Your task to perform on an android device: Open Google Maps Image 0: 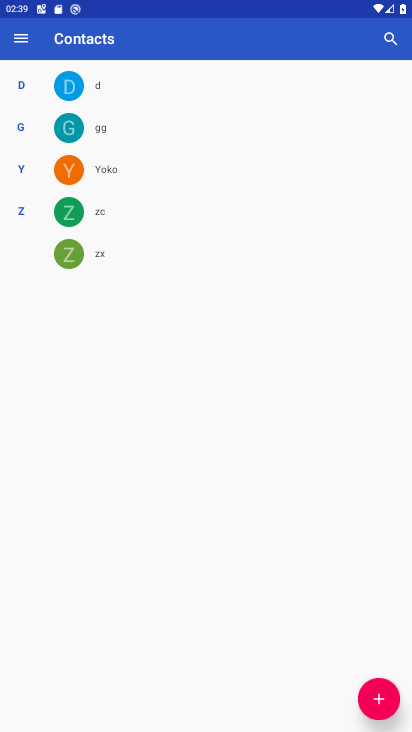
Step 0: press home button
Your task to perform on an android device: Open Google Maps Image 1: 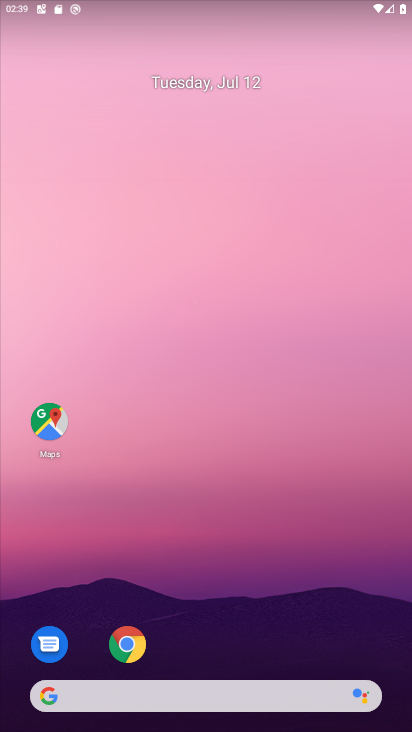
Step 1: drag from (213, 661) to (198, 19)
Your task to perform on an android device: Open Google Maps Image 2: 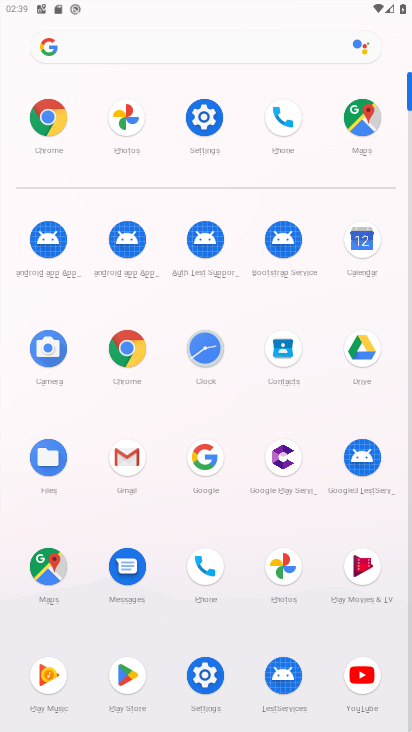
Step 2: click (41, 568)
Your task to perform on an android device: Open Google Maps Image 3: 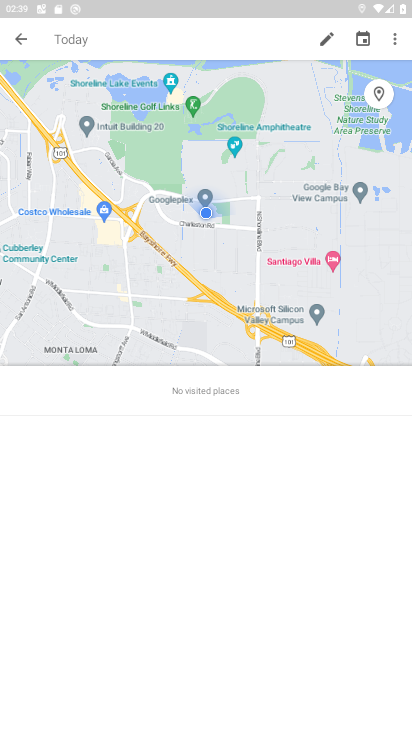
Step 3: task complete